Your task to perform on an android device: Go to privacy settings Image 0: 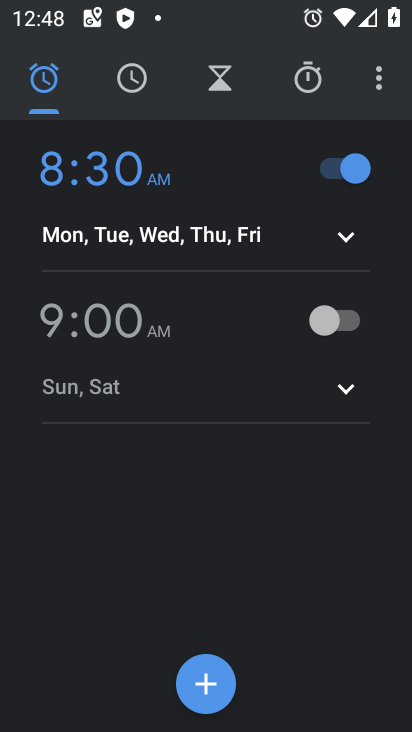
Step 0: press home button
Your task to perform on an android device: Go to privacy settings Image 1: 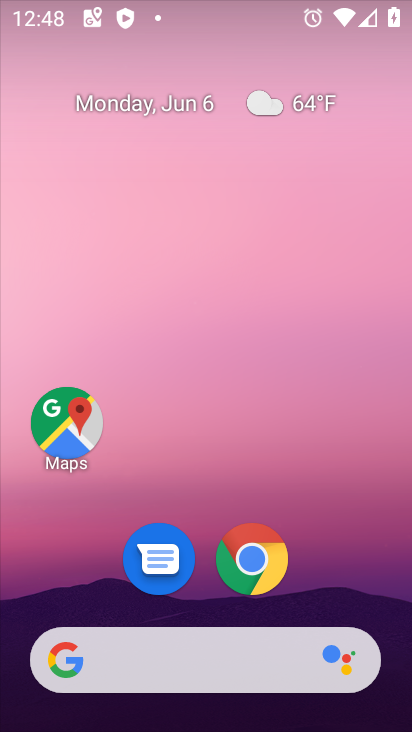
Step 1: drag from (203, 702) to (202, 153)
Your task to perform on an android device: Go to privacy settings Image 2: 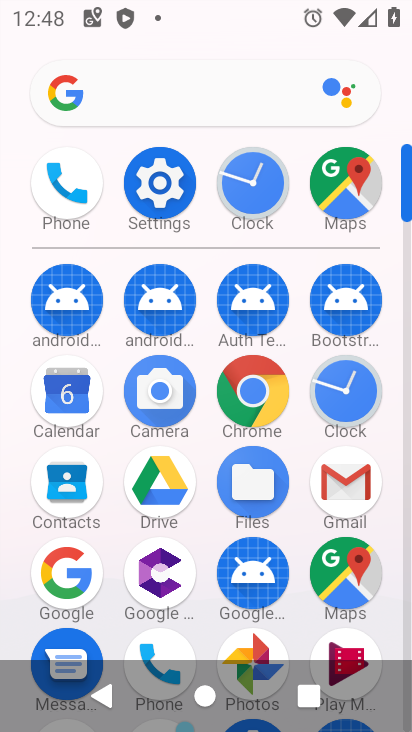
Step 2: click (164, 193)
Your task to perform on an android device: Go to privacy settings Image 3: 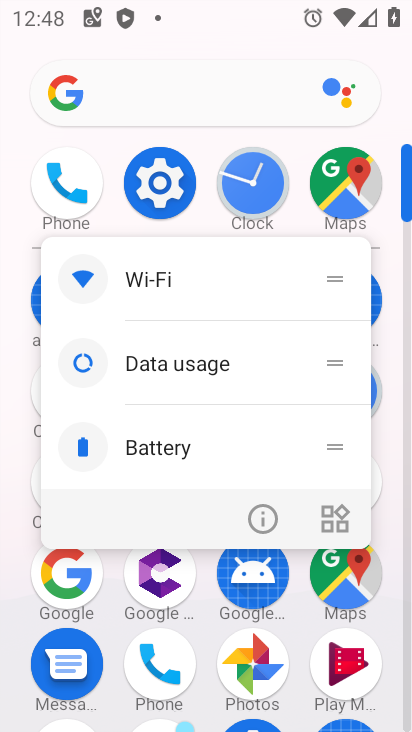
Step 3: click (167, 196)
Your task to perform on an android device: Go to privacy settings Image 4: 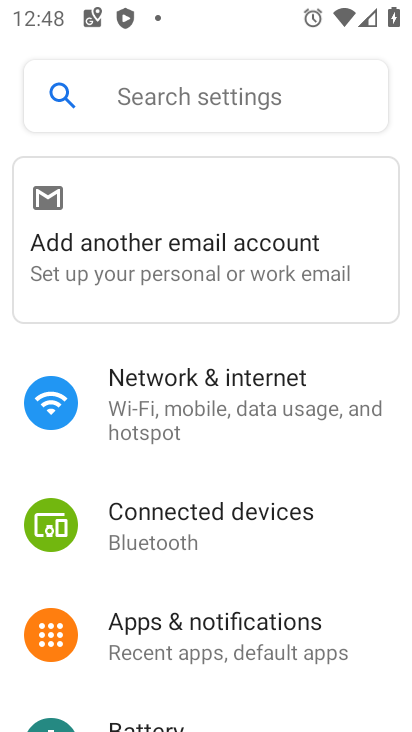
Step 4: click (147, 108)
Your task to perform on an android device: Go to privacy settings Image 5: 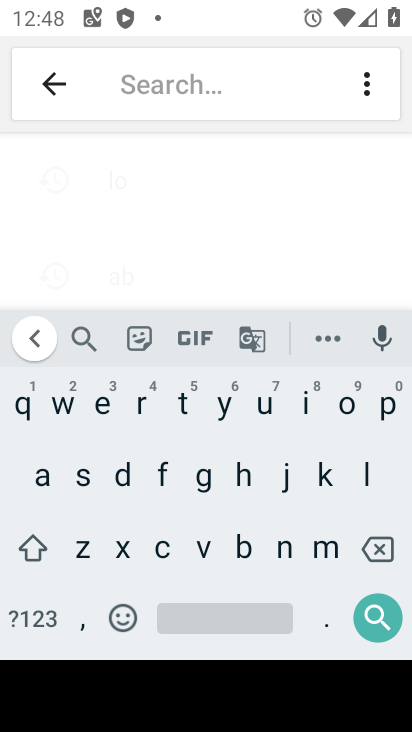
Step 5: click (385, 399)
Your task to perform on an android device: Go to privacy settings Image 6: 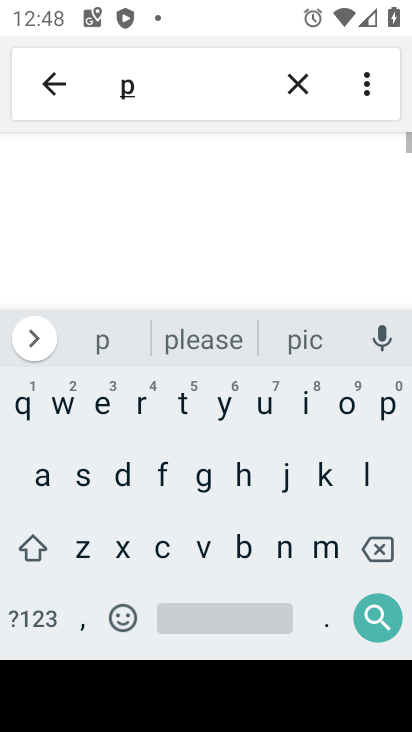
Step 6: click (141, 407)
Your task to perform on an android device: Go to privacy settings Image 7: 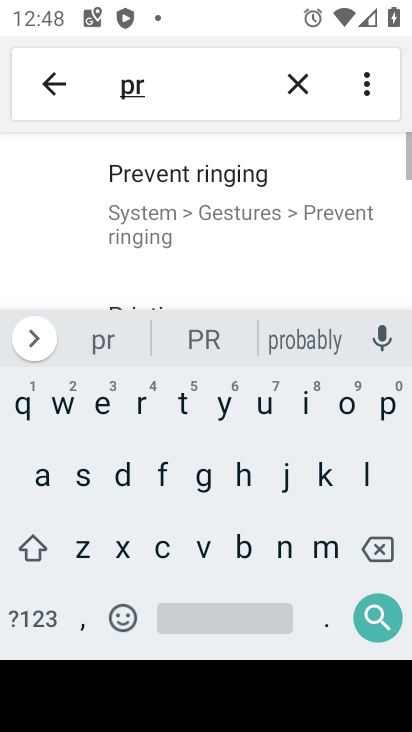
Step 7: click (305, 407)
Your task to perform on an android device: Go to privacy settings Image 8: 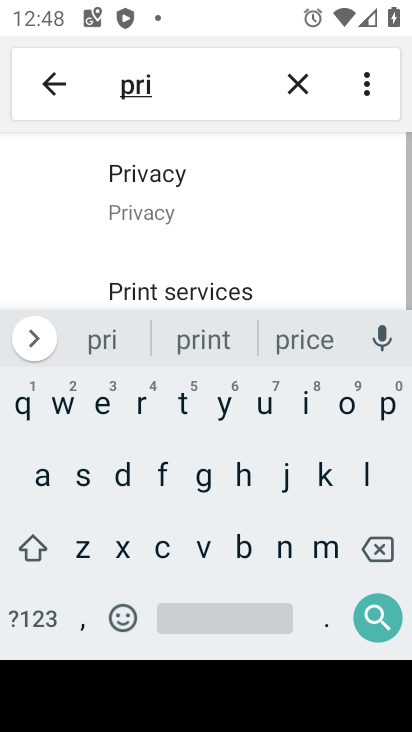
Step 8: click (161, 200)
Your task to perform on an android device: Go to privacy settings Image 9: 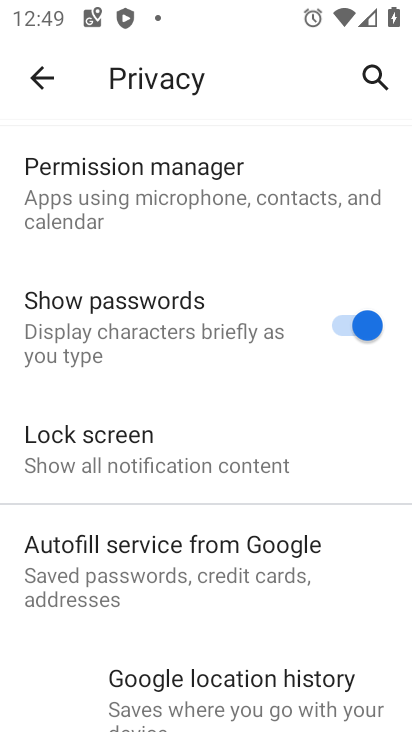
Step 9: task complete